Your task to perform on an android device: add a label to a message in the gmail app Image 0: 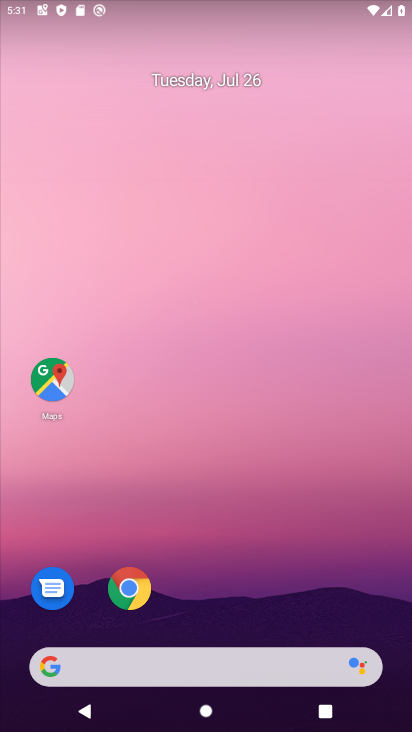
Step 0: drag from (190, 644) to (221, 70)
Your task to perform on an android device: add a label to a message in the gmail app Image 1: 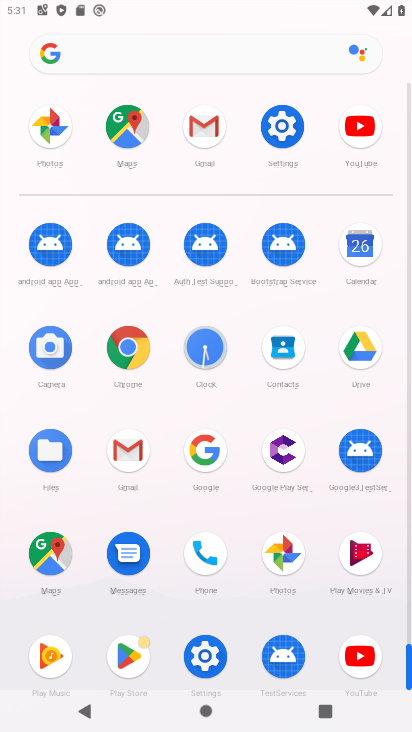
Step 1: click (130, 460)
Your task to perform on an android device: add a label to a message in the gmail app Image 2: 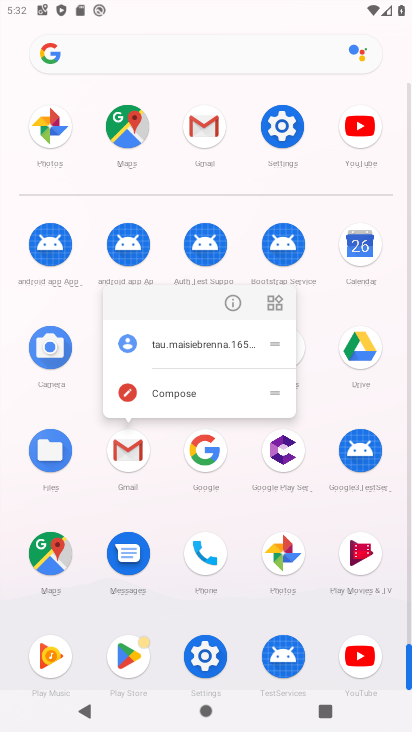
Step 2: click (129, 471)
Your task to perform on an android device: add a label to a message in the gmail app Image 3: 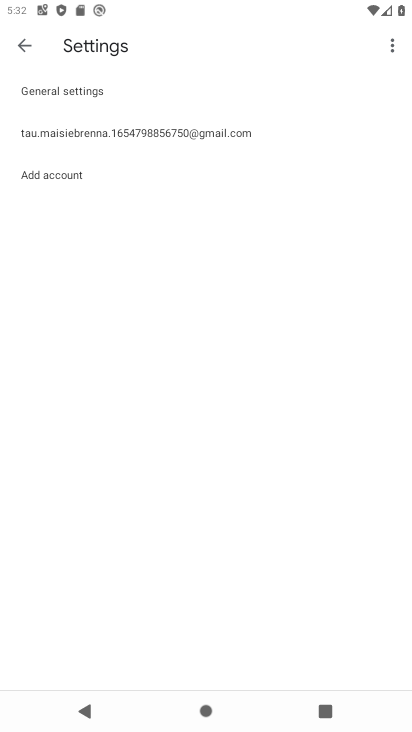
Step 3: click (22, 48)
Your task to perform on an android device: add a label to a message in the gmail app Image 4: 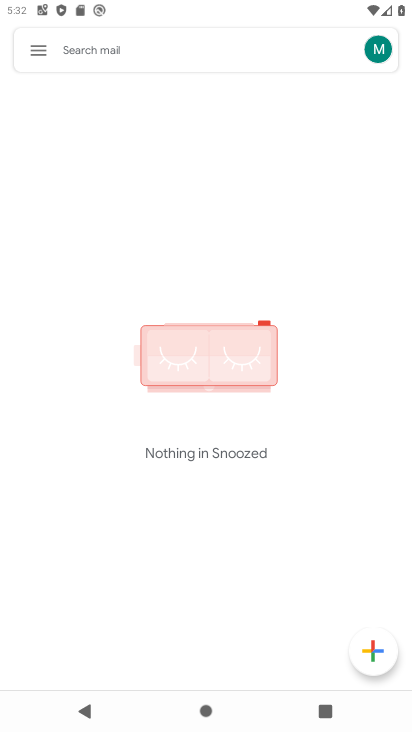
Step 4: click (40, 60)
Your task to perform on an android device: add a label to a message in the gmail app Image 5: 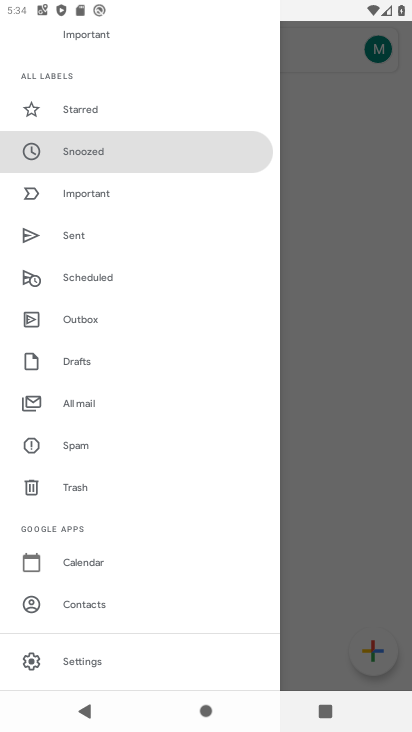
Step 5: click (81, 405)
Your task to perform on an android device: add a label to a message in the gmail app Image 6: 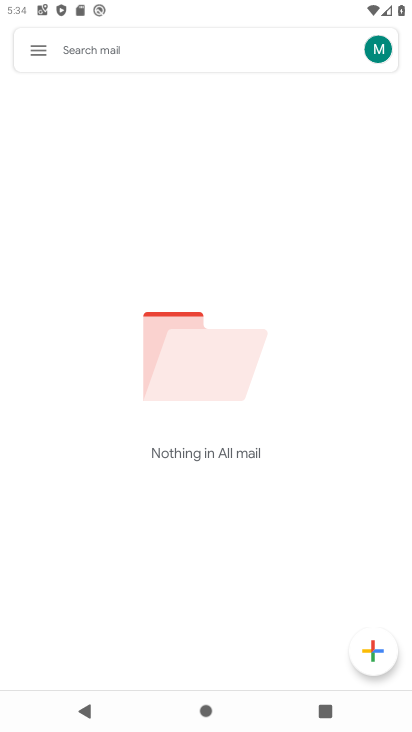
Step 6: click (35, 50)
Your task to perform on an android device: add a label to a message in the gmail app Image 7: 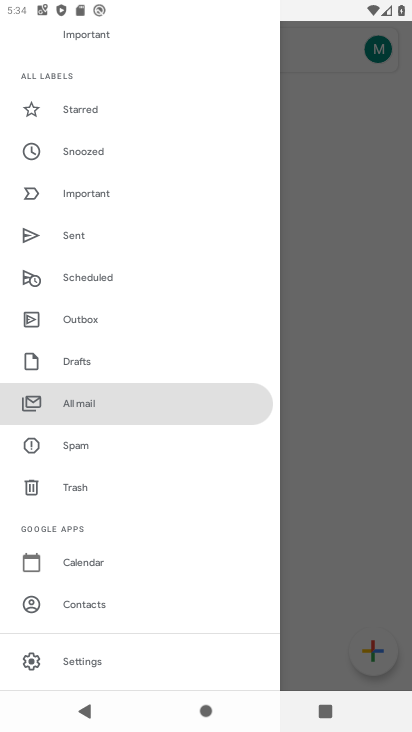
Step 7: click (171, 415)
Your task to perform on an android device: add a label to a message in the gmail app Image 8: 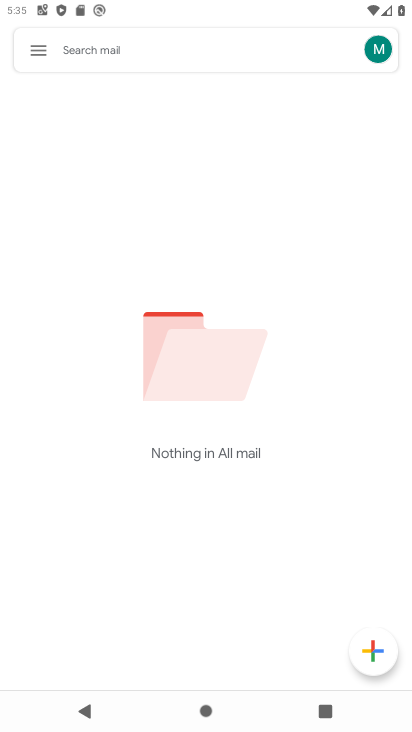
Step 8: task complete